Your task to perform on an android device: Open calendar and show me the second week of next month Image 0: 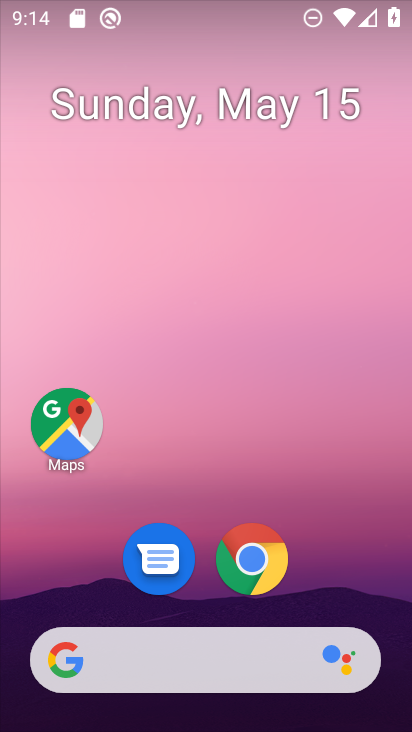
Step 0: drag from (345, 582) to (233, 42)
Your task to perform on an android device: Open calendar and show me the second week of next month Image 1: 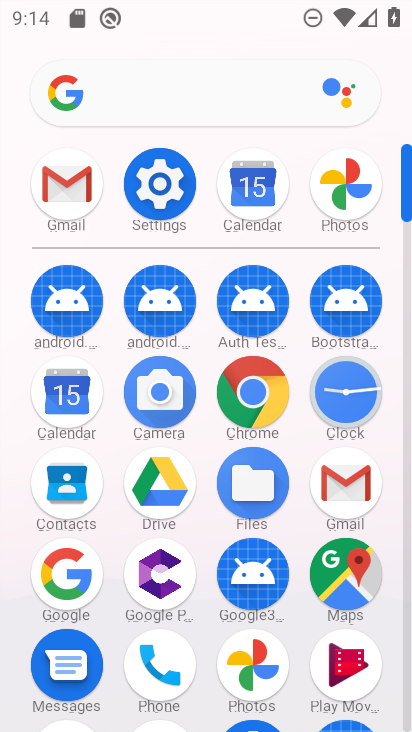
Step 1: click (43, 418)
Your task to perform on an android device: Open calendar and show me the second week of next month Image 2: 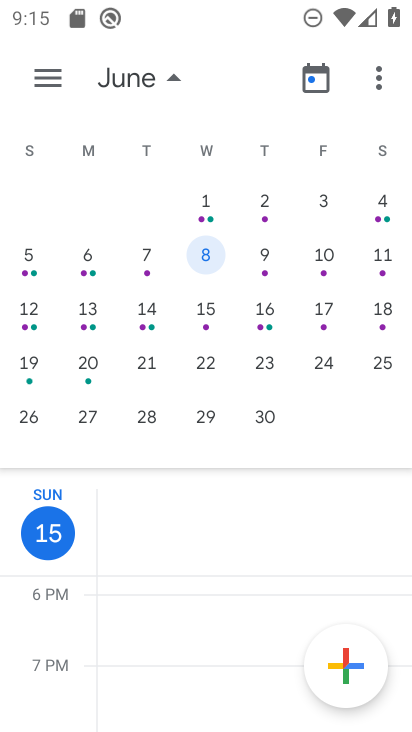
Step 2: click (208, 299)
Your task to perform on an android device: Open calendar and show me the second week of next month Image 3: 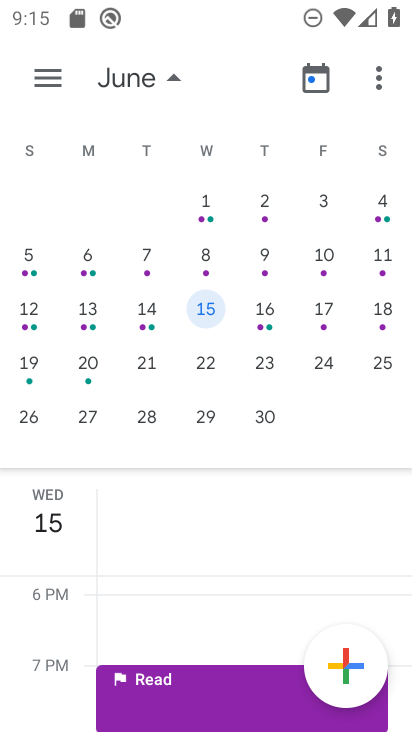
Step 3: task complete